Your task to perform on an android device: change text size in settings app Image 0: 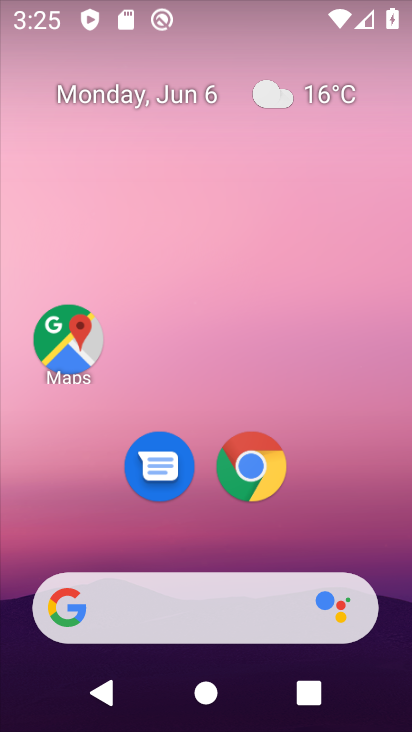
Step 0: drag from (214, 548) to (245, 37)
Your task to perform on an android device: change text size in settings app Image 1: 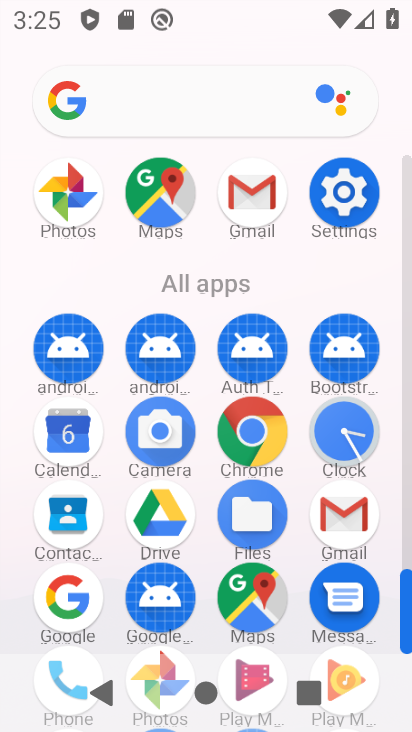
Step 1: click (341, 182)
Your task to perform on an android device: change text size in settings app Image 2: 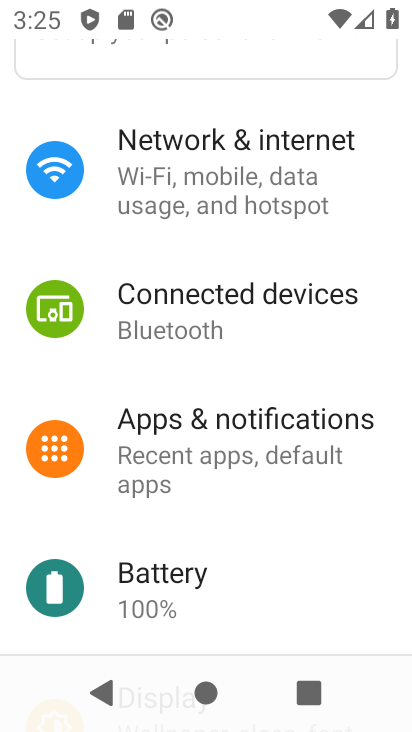
Step 2: drag from (248, 590) to (277, 96)
Your task to perform on an android device: change text size in settings app Image 3: 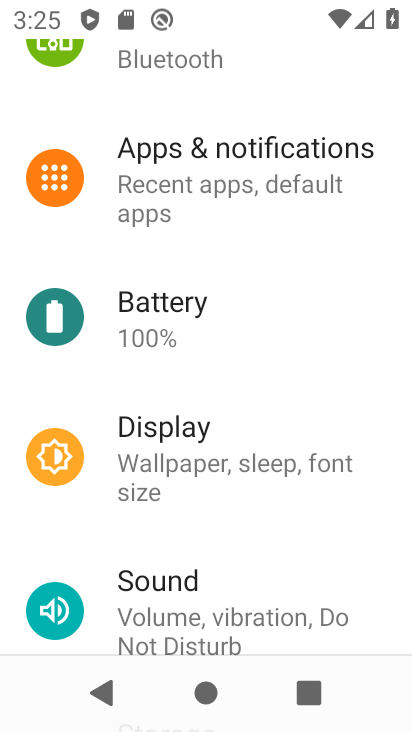
Step 3: click (248, 458)
Your task to perform on an android device: change text size in settings app Image 4: 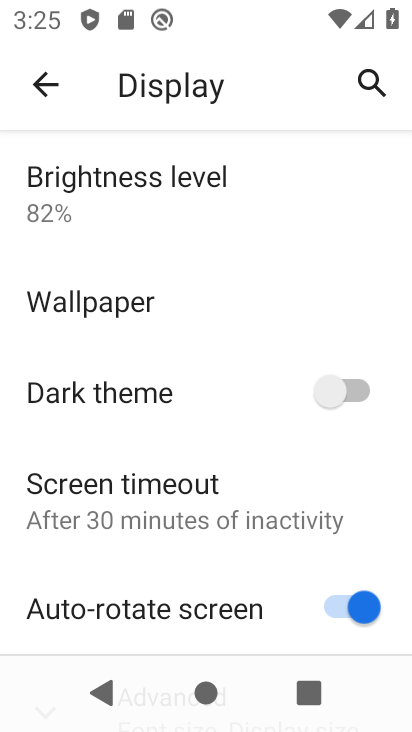
Step 4: drag from (163, 545) to (220, 75)
Your task to perform on an android device: change text size in settings app Image 5: 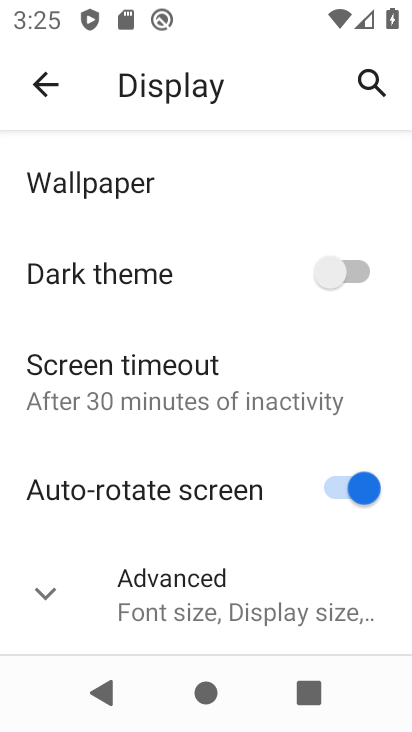
Step 5: click (129, 589)
Your task to perform on an android device: change text size in settings app Image 6: 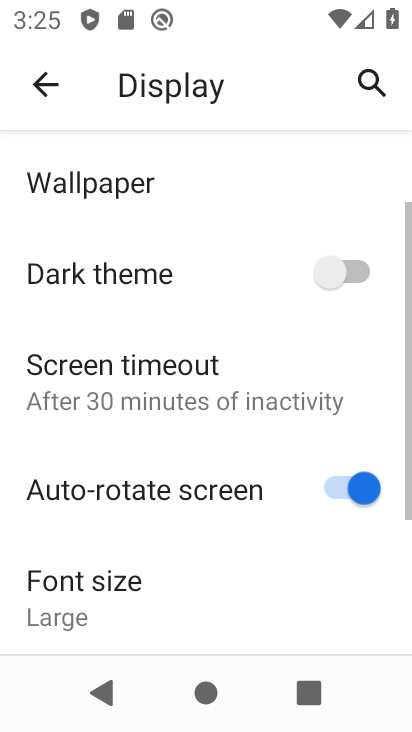
Step 6: click (97, 600)
Your task to perform on an android device: change text size in settings app Image 7: 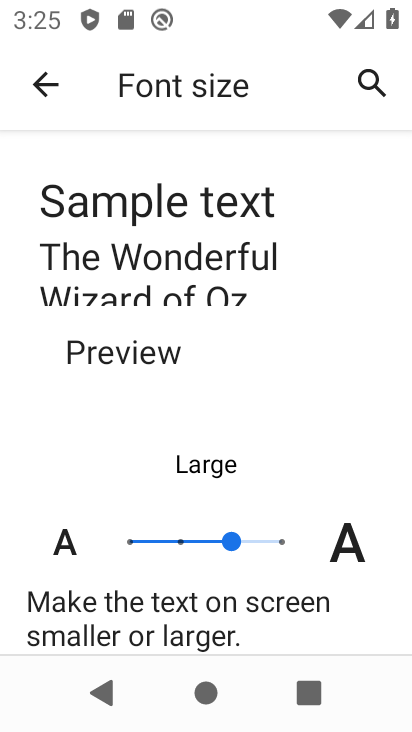
Step 7: click (131, 543)
Your task to perform on an android device: change text size in settings app Image 8: 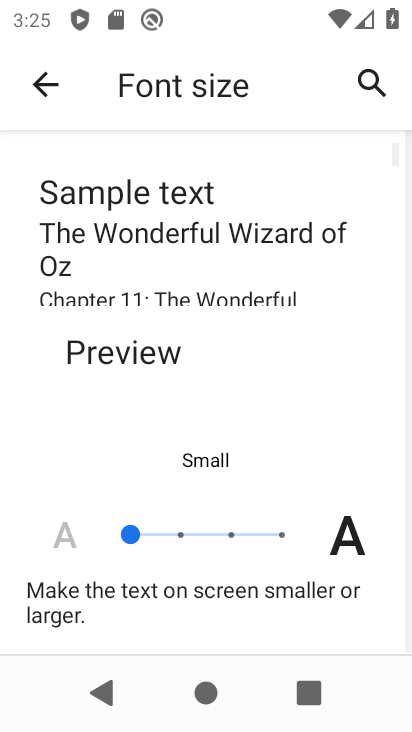
Step 8: task complete